Your task to perform on an android device: turn off improve location accuracy Image 0: 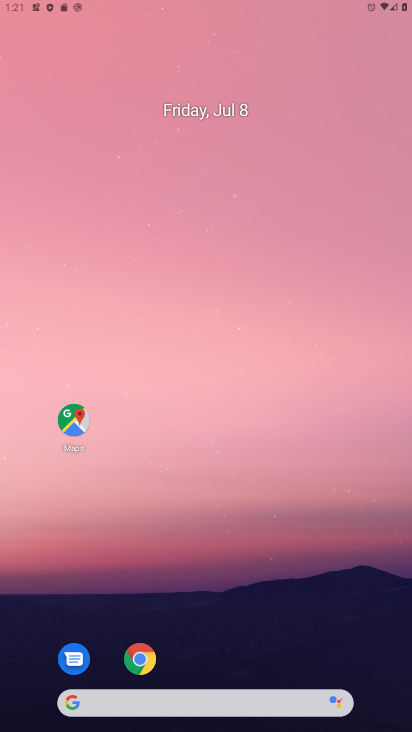
Step 0: drag from (285, 617) to (198, 258)
Your task to perform on an android device: turn off improve location accuracy Image 1: 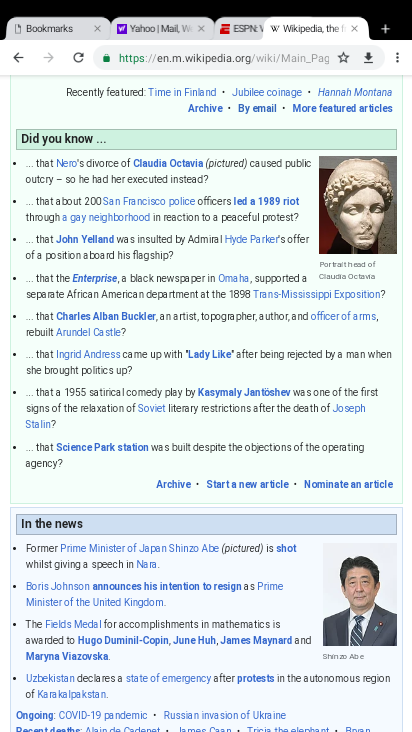
Step 1: press home button
Your task to perform on an android device: turn off improve location accuracy Image 2: 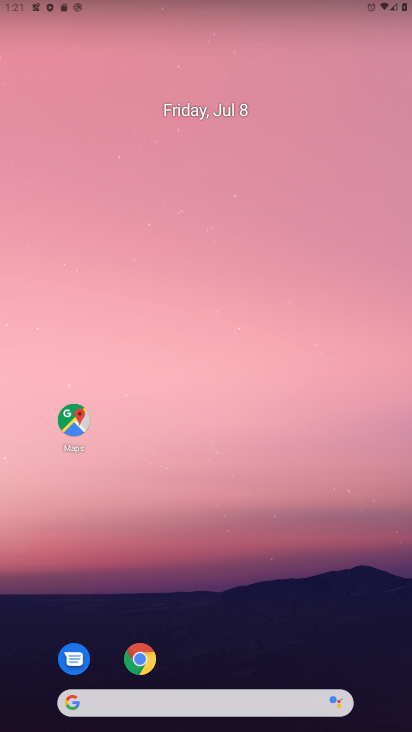
Step 2: drag from (218, 600) to (176, 244)
Your task to perform on an android device: turn off improve location accuracy Image 3: 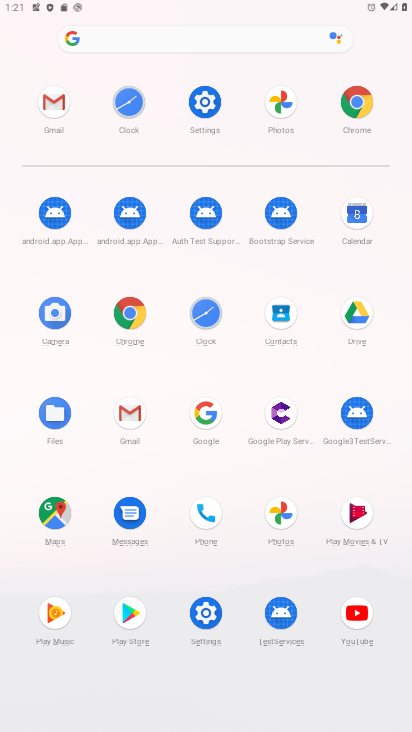
Step 3: click (201, 104)
Your task to perform on an android device: turn off improve location accuracy Image 4: 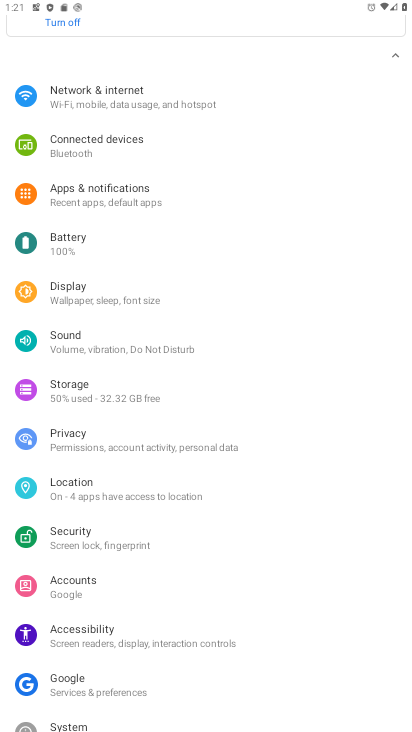
Step 4: click (76, 484)
Your task to perform on an android device: turn off improve location accuracy Image 5: 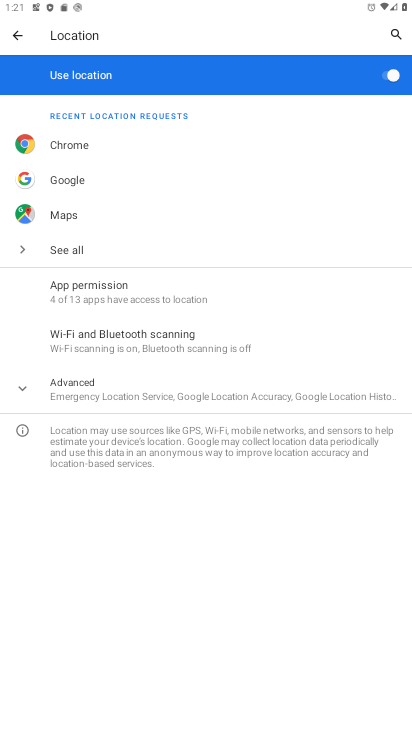
Step 5: click (33, 391)
Your task to perform on an android device: turn off improve location accuracy Image 6: 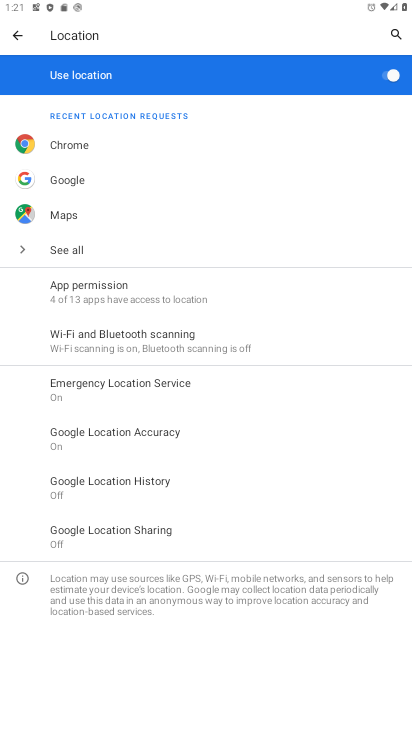
Step 6: click (138, 428)
Your task to perform on an android device: turn off improve location accuracy Image 7: 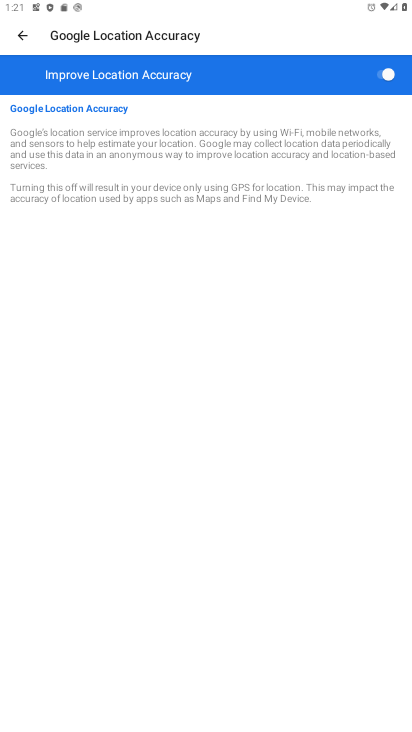
Step 7: click (385, 79)
Your task to perform on an android device: turn off improve location accuracy Image 8: 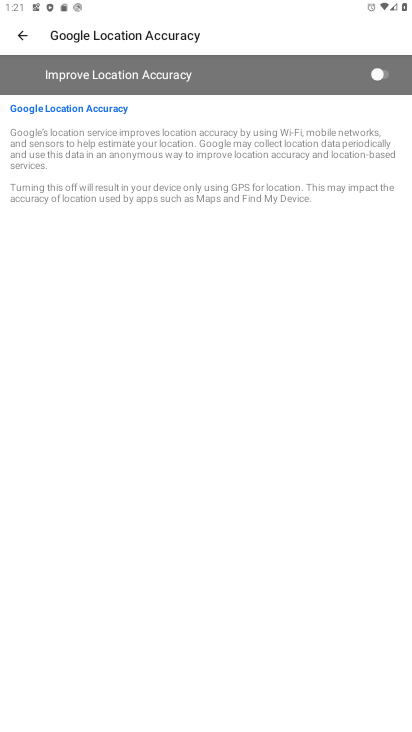
Step 8: task complete